Your task to perform on an android device: allow cookies in the chrome app Image 0: 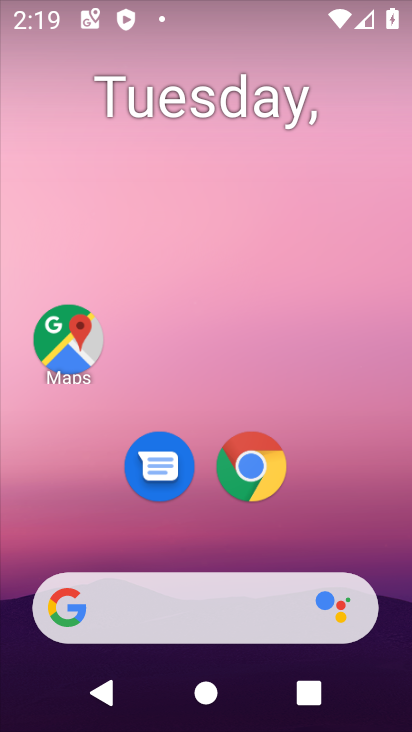
Step 0: click (286, 476)
Your task to perform on an android device: allow cookies in the chrome app Image 1: 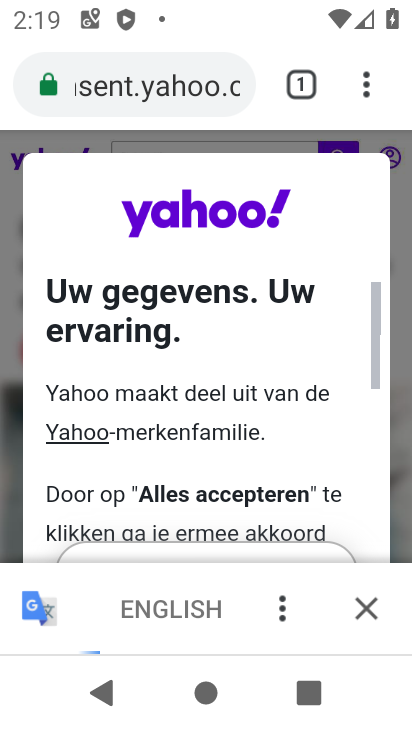
Step 1: click (381, 93)
Your task to perform on an android device: allow cookies in the chrome app Image 2: 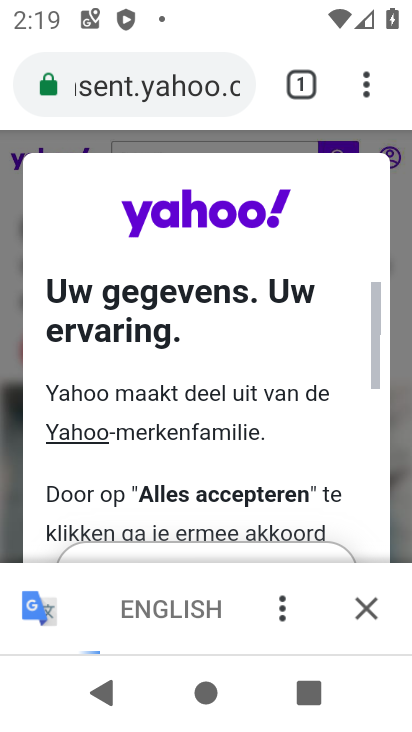
Step 2: task complete